Your task to perform on an android device: read, delete, or share a saved page in the chrome app Image 0: 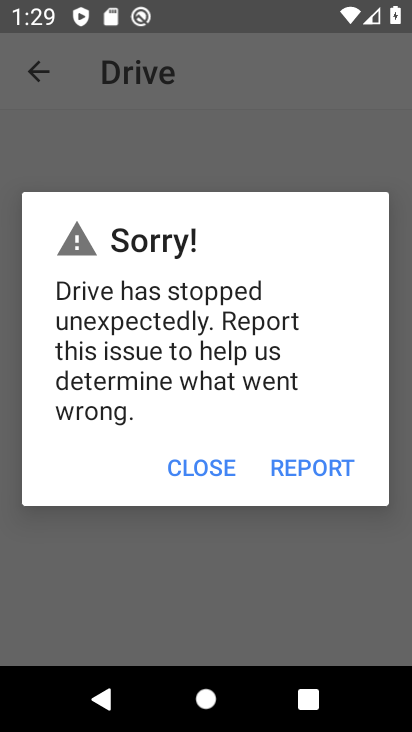
Step 0: press home button
Your task to perform on an android device: read, delete, or share a saved page in the chrome app Image 1: 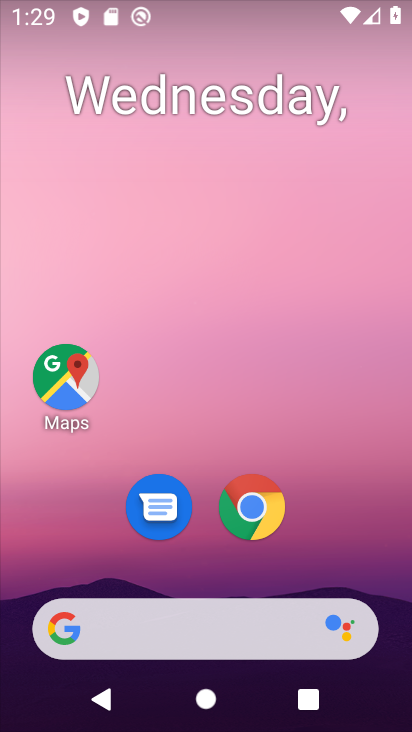
Step 1: drag from (207, 527) to (406, 474)
Your task to perform on an android device: read, delete, or share a saved page in the chrome app Image 2: 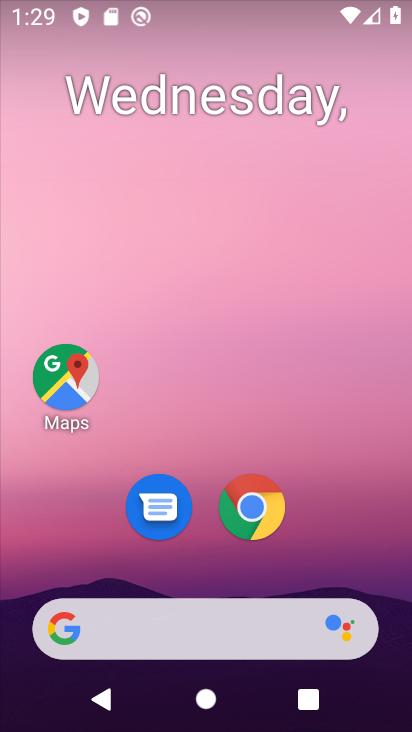
Step 2: click (250, 509)
Your task to perform on an android device: read, delete, or share a saved page in the chrome app Image 3: 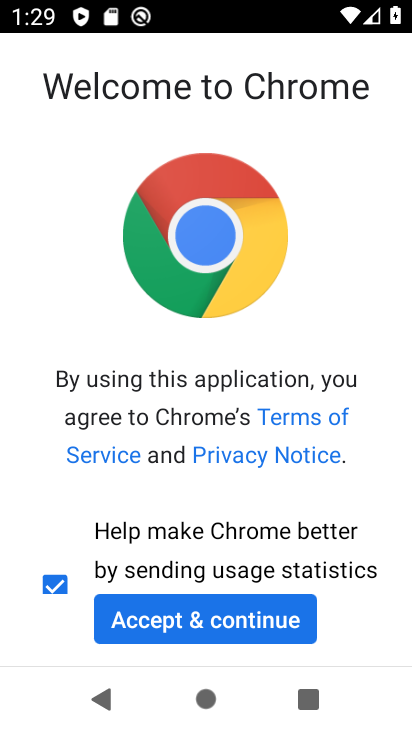
Step 3: click (200, 631)
Your task to perform on an android device: read, delete, or share a saved page in the chrome app Image 4: 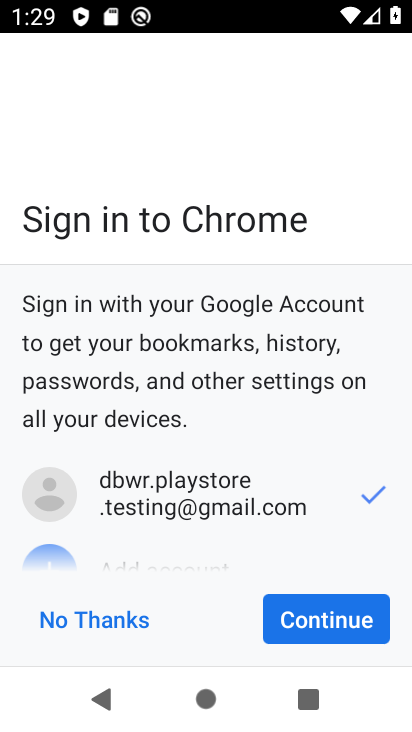
Step 4: click (334, 620)
Your task to perform on an android device: read, delete, or share a saved page in the chrome app Image 5: 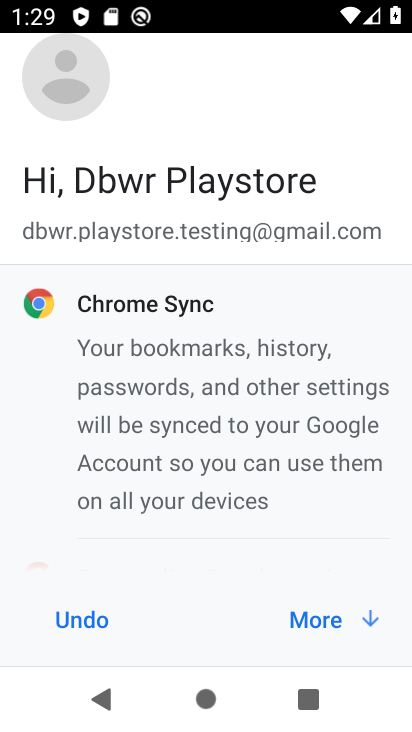
Step 5: click (297, 613)
Your task to perform on an android device: read, delete, or share a saved page in the chrome app Image 6: 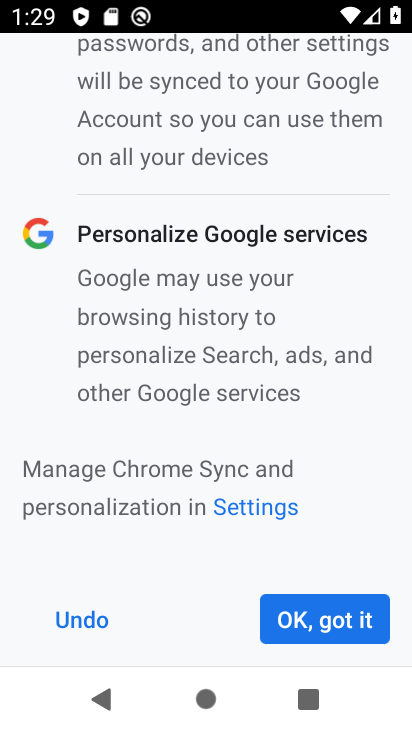
Step 6: click (300, 609)
Your task to perform on an android device: read, delete, or share a saved page in the chrome app Image 7: 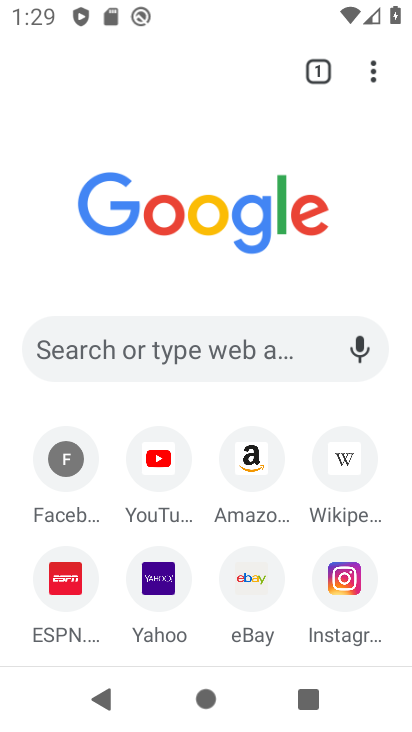
Step 7: click (373, 72)
Your task to perform on an android device: read, delete, or share a saved page in the chrome app Image 8: 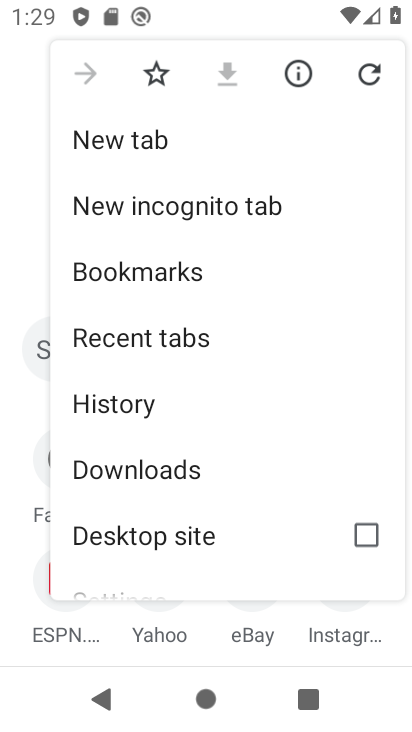
Step 8: drag from (248, 530) to (260, 322)
Your task to perform on an android device: read, delete, or share a saved page in the chrome app Image 9: 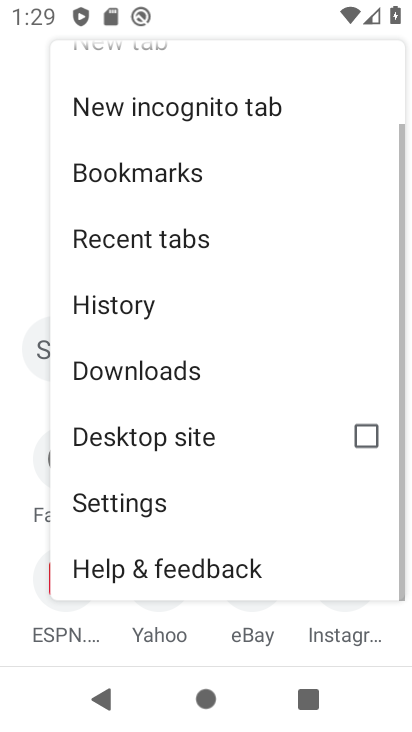
Step 9: click (131, 504)
Your task to perform on an android device: read, delete, or share a saved page in the chrome app Image 10: 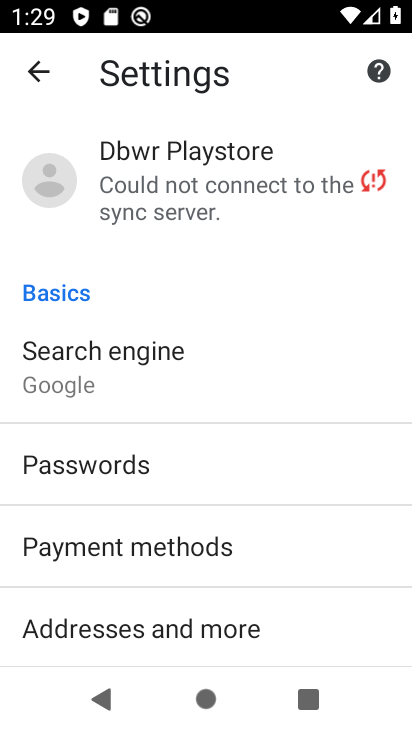
Step 10: click (27, 71)
Your task to perform on an android device: read, delete, or share a saved page in the chrome app Image 11: 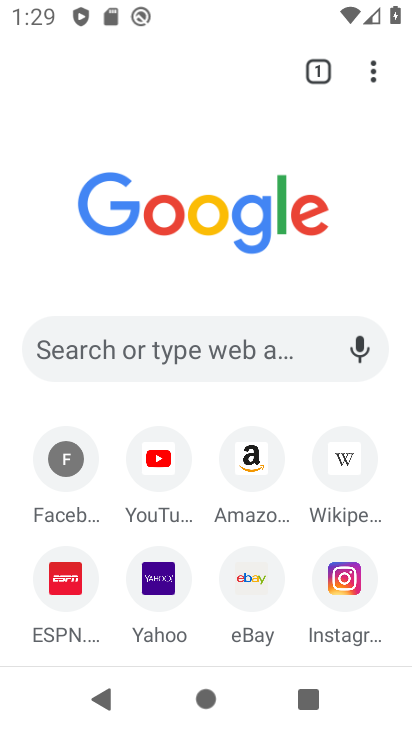
Step 11: click (374, 69)
Your task to perform on an android device: read, delete, or share a saved page in the chrome app Image 12: 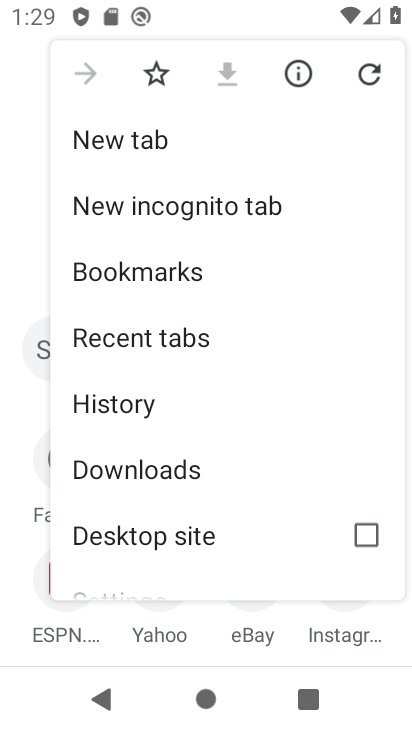
Step 12: drag from (278, 536) to (255, 321)
Your task to perform on an android device: read, delete, or share a saved page in the chrome app Image 13: 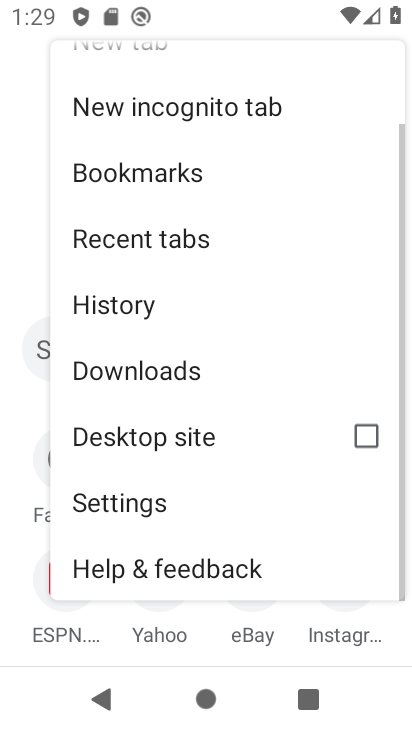
Step 13: drag from (277, 544) to (256, 297)
Your task to perform on an android device: read, delete, or share a saved page in the chrome app Image 14: 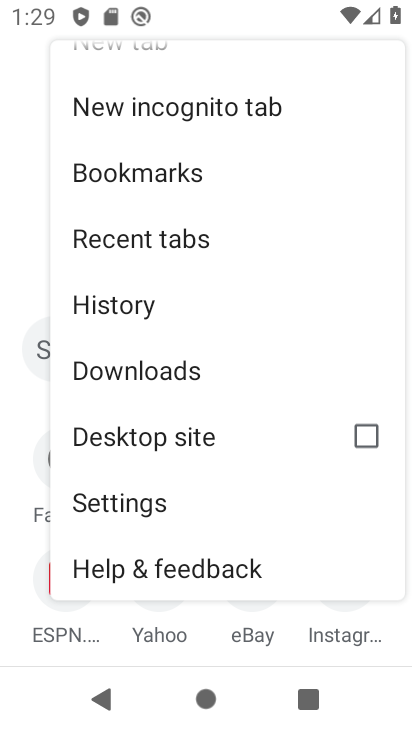
Step 14: click (138, 361)
Your task to perform on an android device: read, delete, or share a saved page in the chrome app Image 15: 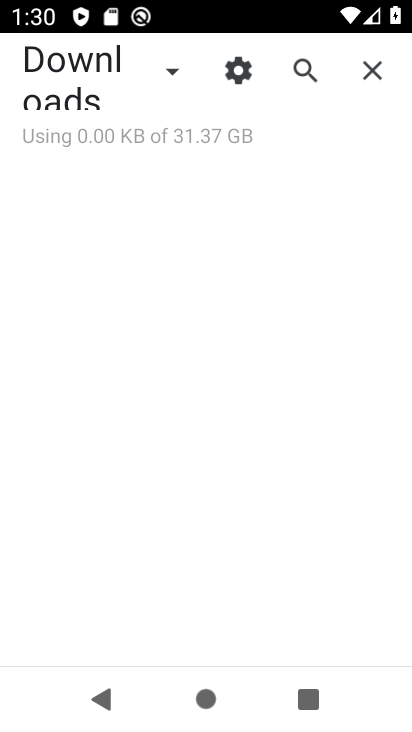
Step 15: task complete